Your task to perform on an android device: see creations saved in the google photos Image 0: 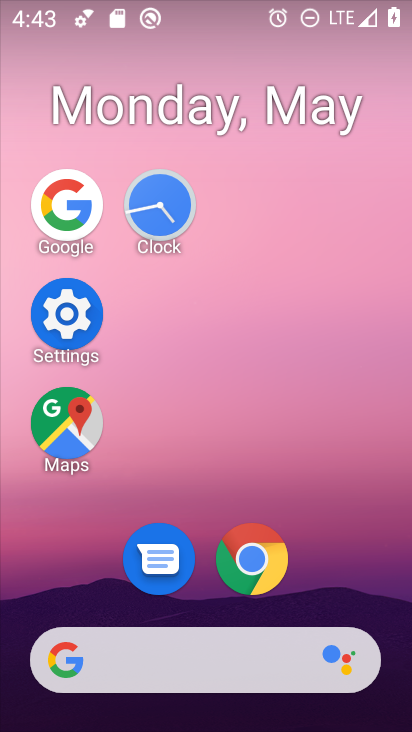
Step 0: drag from (341, 438) to (341, 191)
Your task to perform on an android device: see creations saved in the google photos Image 1: 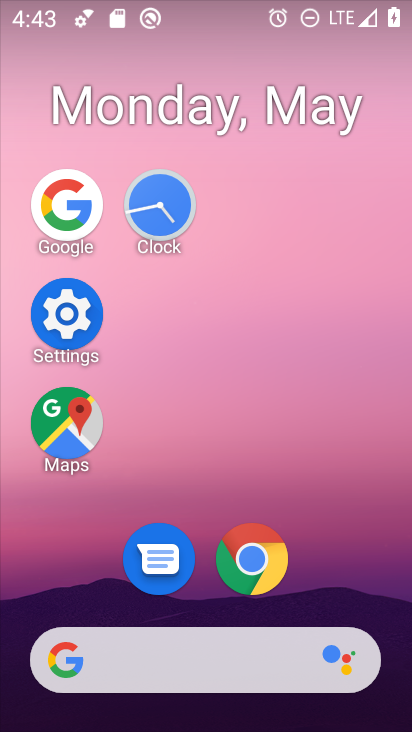
Step 1: drag from (301, 564) to (343, 143)
Your task to perform on an android device: see creations saved in the google photos Image 2: 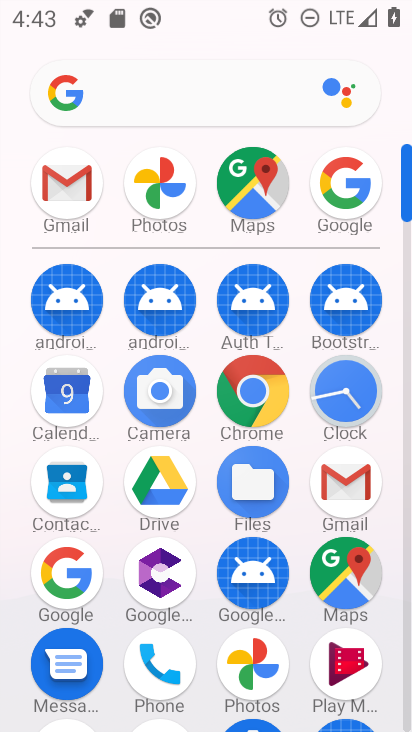
Step 2: click (250, 648)
Your task to perform on an android device: see creations saved in the google photos Image 3: 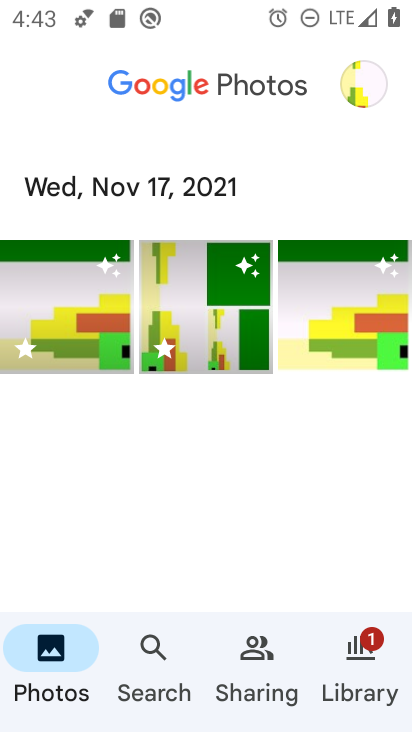
Step 3: click (352, 77)
Your task to perform on an android device: see creations saved in the google photos Image 4: 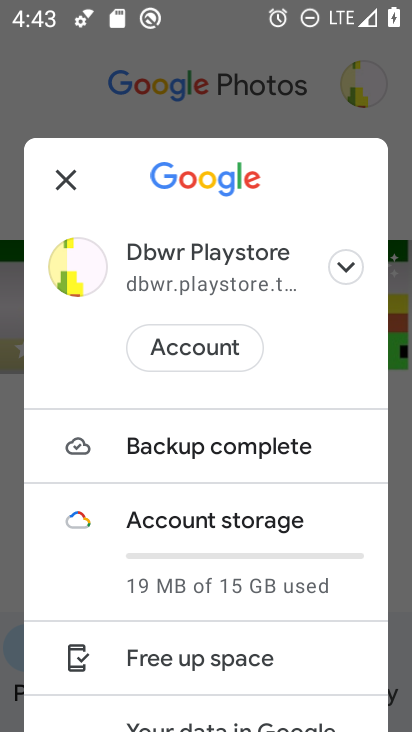
Step 4: click (66, 183)
Your task to perform on an android device: see creations saved in the google photos Image 5: 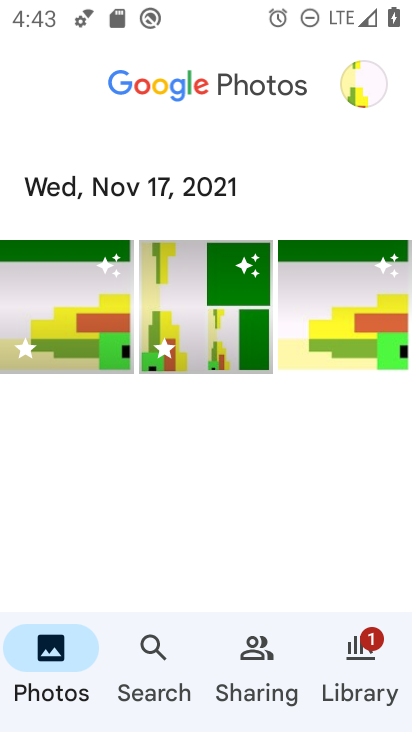
Step 5: click (149, 654)
Your task to perform on an android device: see creations saved in the google photos Image 6: 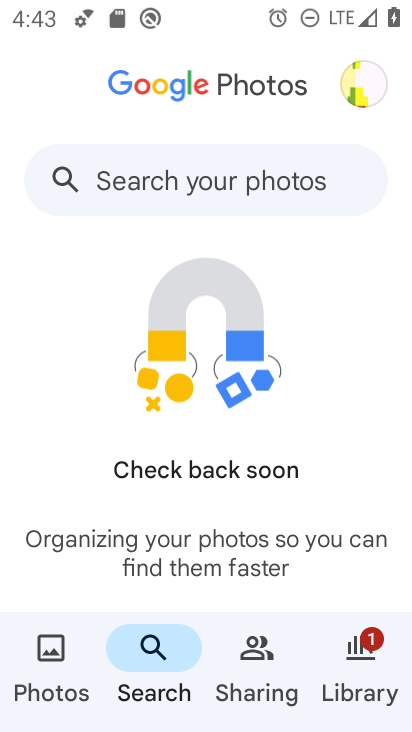
Step 6: click (172, 190)
Your task to perform on an android device: see creations saved in the google photos Image 7: 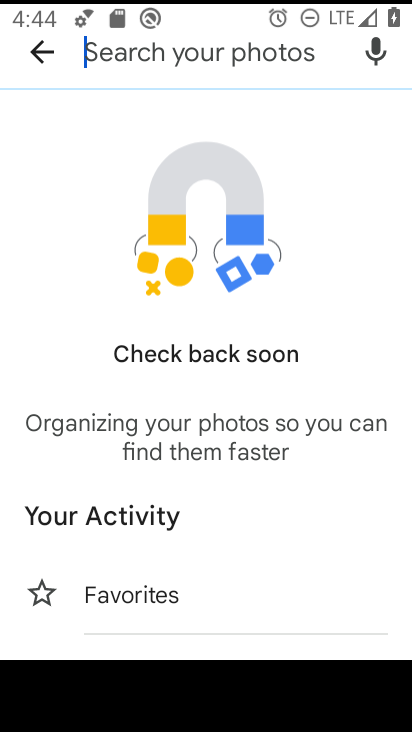
Step 7: drag from (243, 561) to (257, 149)
Your task to perform on an android device: see creations saved in the google photos Image 8: 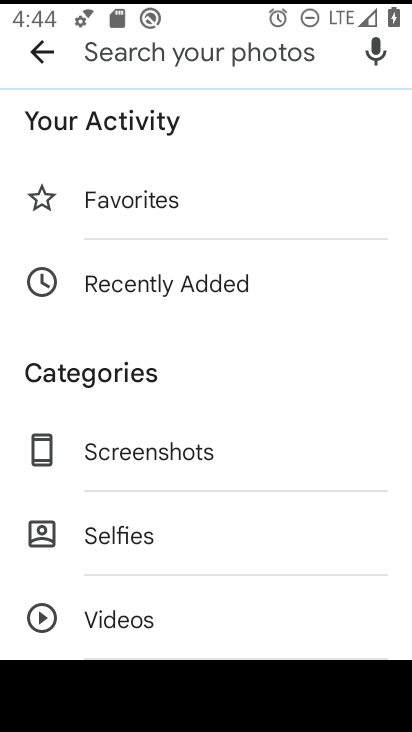
Step 8: drag from (182, 538) to (213, 212)
Your task to perform on an android device: see creations saved in the google photos Image 9: 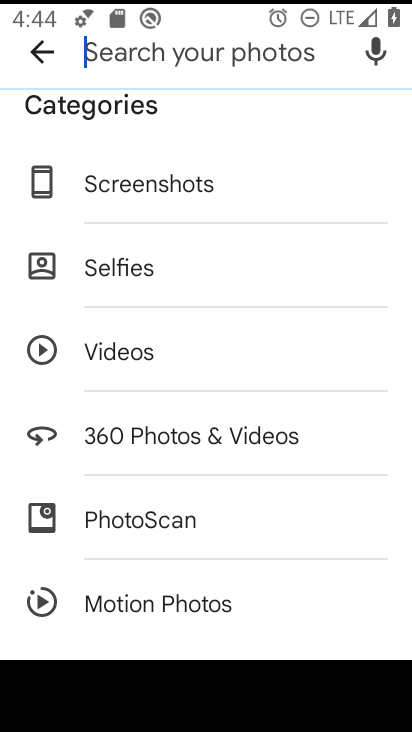
Step 9: drag from (213, 547) to (249, 190)
Your task to perform on an android device: see creations saved in the google photos Image 10: 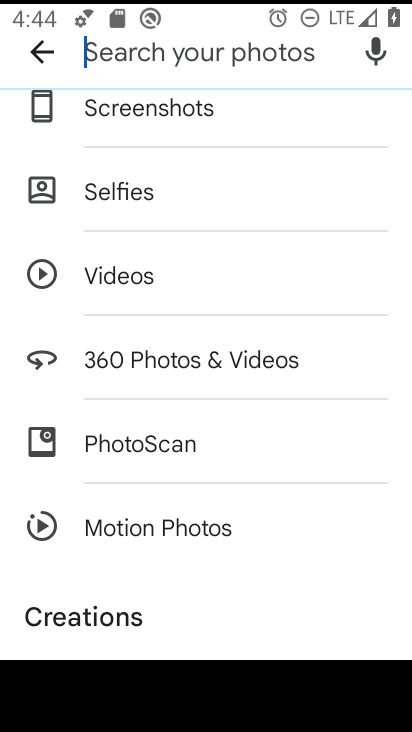
Step 10: drag from (222, 540) to (250, 240)
Your task to perform on an android device: see creations saved in the google photos Image 11: 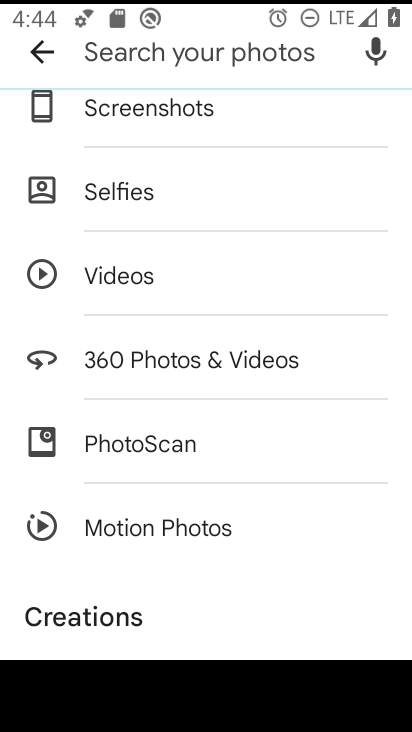
Step 11: click (104, 627)
Your task to perform on an android device: see creations saved in the google photos Image 12: 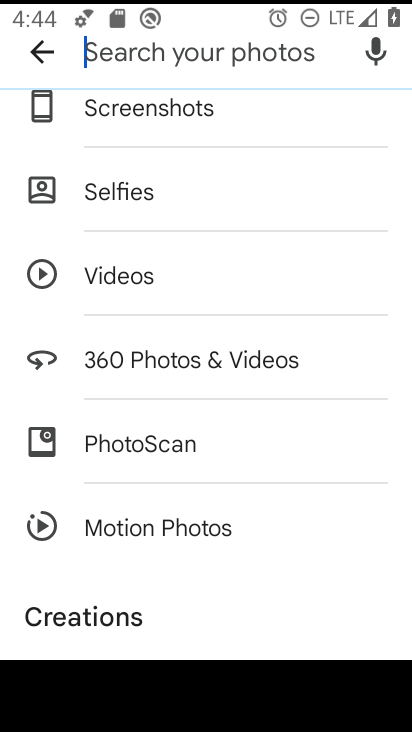
Step 12: click (110, 620)
Your task to perform on an android device: see creations saved in the google photos Image 13: 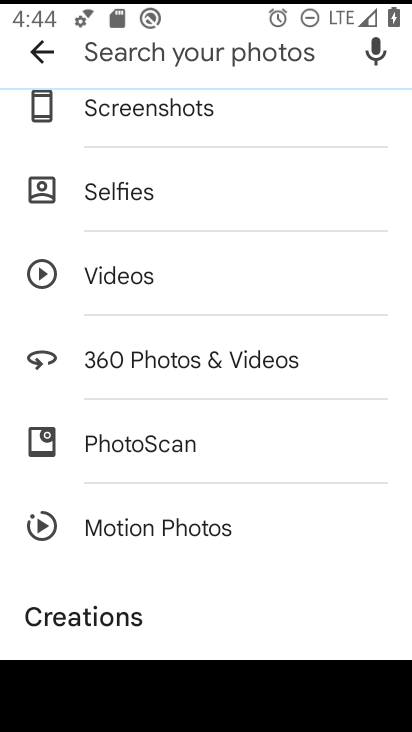
Step 13: drag from (202, 590) to (252, 350)
Your task to perform on an android device: see creations saved in the google photos Image 14: 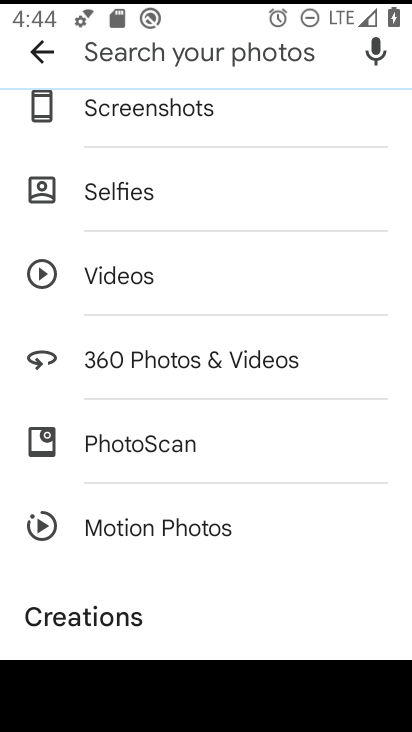
Step 14: click (96, 613)
Your task to perform on an android device: see creations saved in the google photos Image 15: 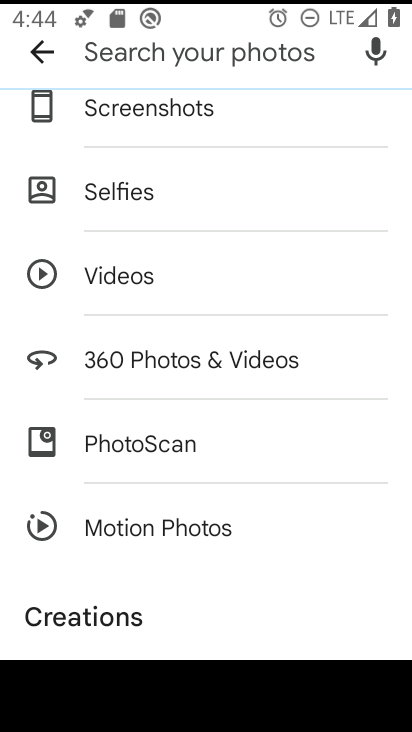
Step 15: task complete